Your task to perform on an android device: Open Yahoo.com Image 0: 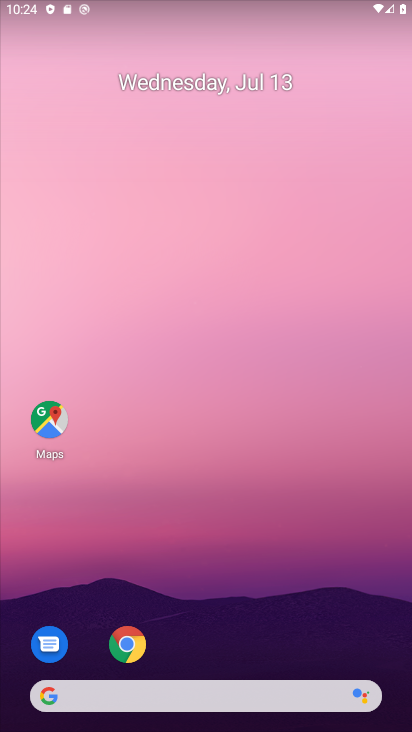
Step 0: click (128, 641)
Your task to perform on an android device: Open Yahoo.com Image 1: 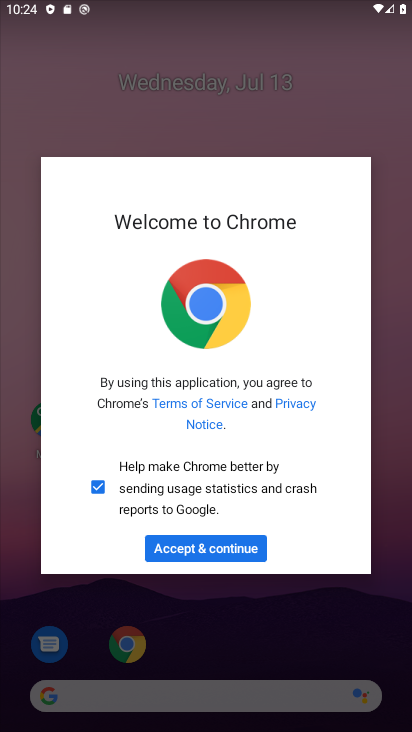
Step 1: click (207, 552)
Your task to perform on an android device: Open Yahoo.com Image 2: 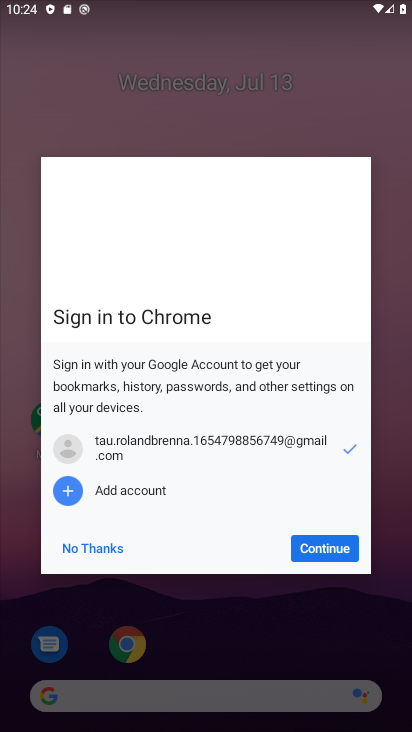
Step 2: click (335, 549)
Your task to perform on an android device: Open Yahoo.com Image 3: 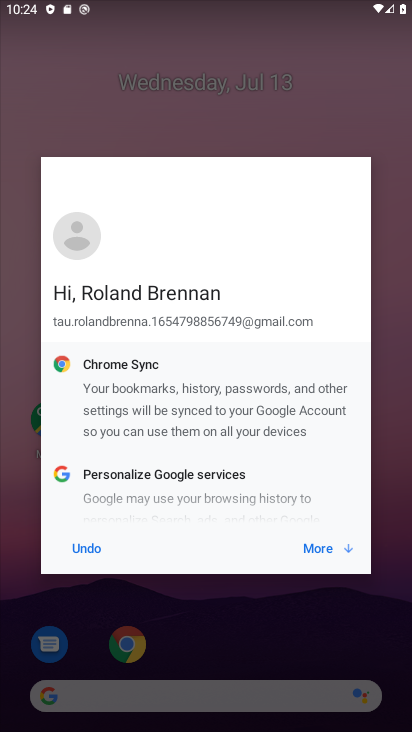
Step 3: click (336, 542)
Your task to perform on an android device: Open Yahoo.com Image 4: 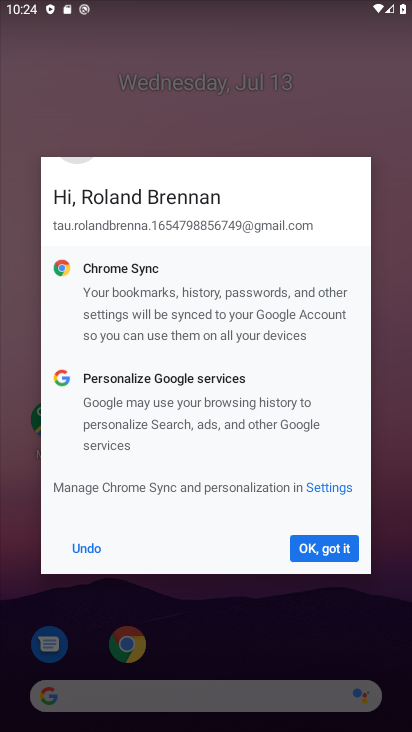
Step 4: click (318, 553)
Your task to perform on an android device: Open Yahoo.com Image 5: 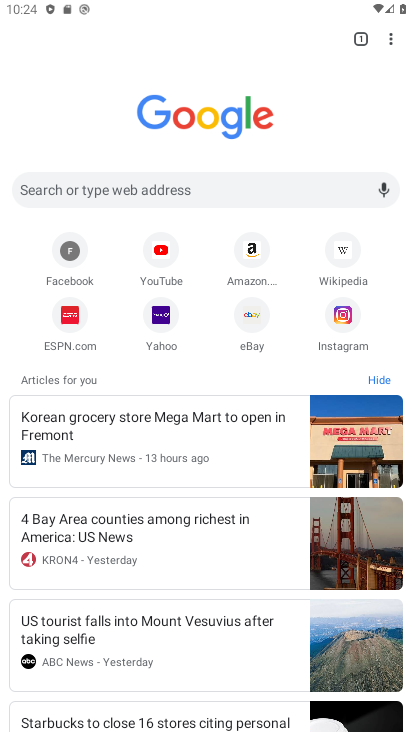
Step 5: click (157, 310)
Your task to perform on an android device: Open Yahoo.com Image 6: 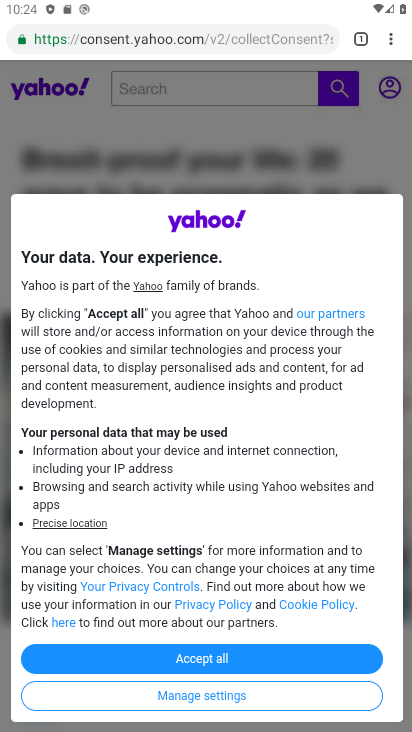
Step 6: click (215, 653)
Your task to perform on an android device: Open Yahoo.com Image 7: 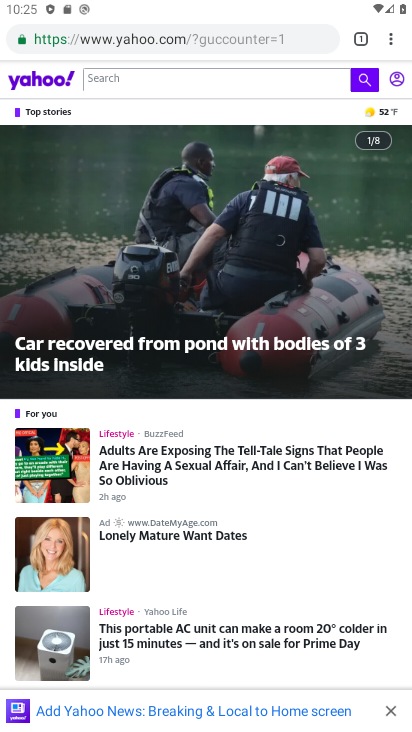
Step 7: task complete